Your task to perform on an android device: Go to sound settings Image 0: 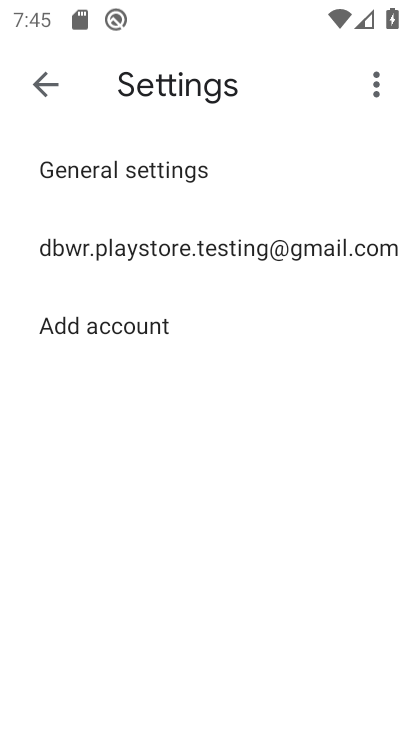
Step 0: press home button
Your task to perform on an android device: Go to sound settings Image 1: 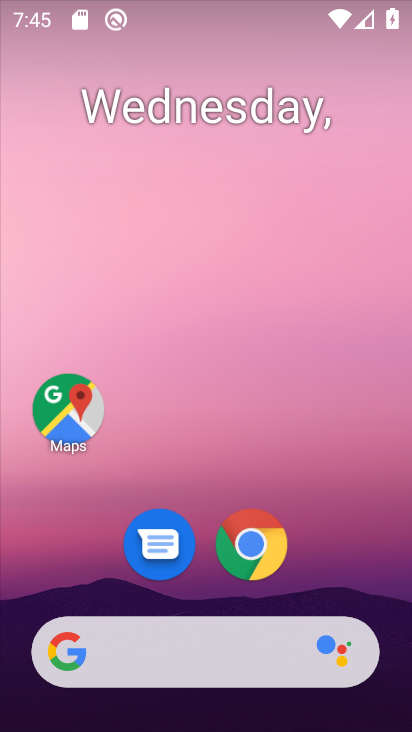
Step 1: drag from (277, 545) to (278, 260)
Your task to perform on an android device: Go to sound settings Image 2: 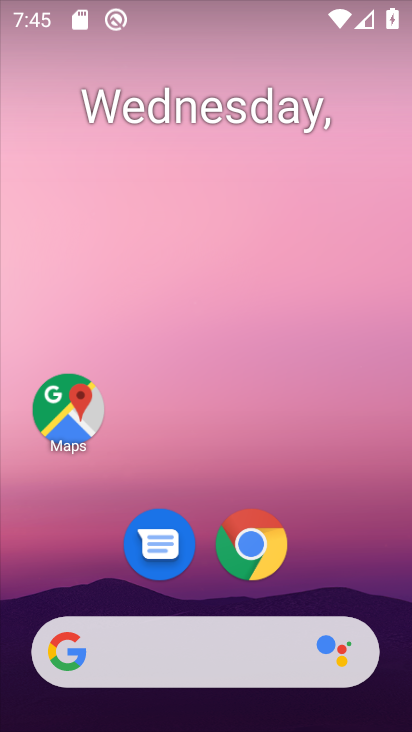
Step 2: drag from (256, 631) to (251, 280)
Your task to perform on an android device: Go to sound settings Image 3: 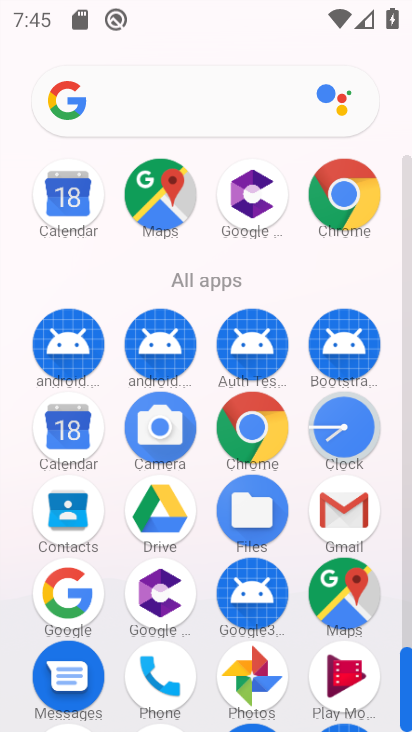
Step 3: drag from (259, 640) to (324, 294)
Your task to perform on an android device: Go to sound settings Image 4: 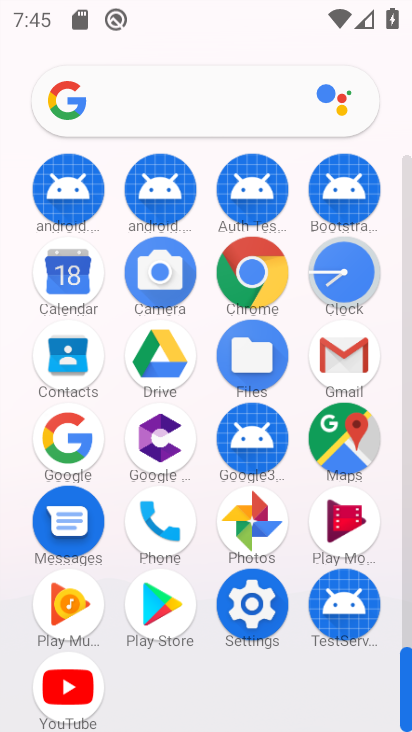
Step 4: click (257, 616)
Your task to perform on an android device: Go to sound settings Image 5: 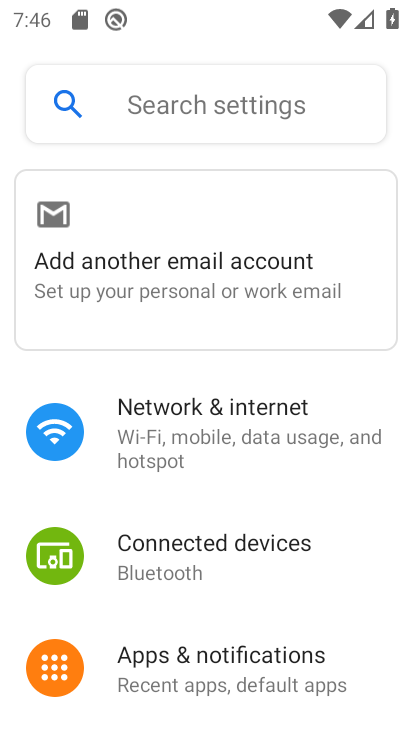
Step 5: drag from (216, 617) to (287, 332)
Your task to perform on an android device: Go to sound settings Image 6: 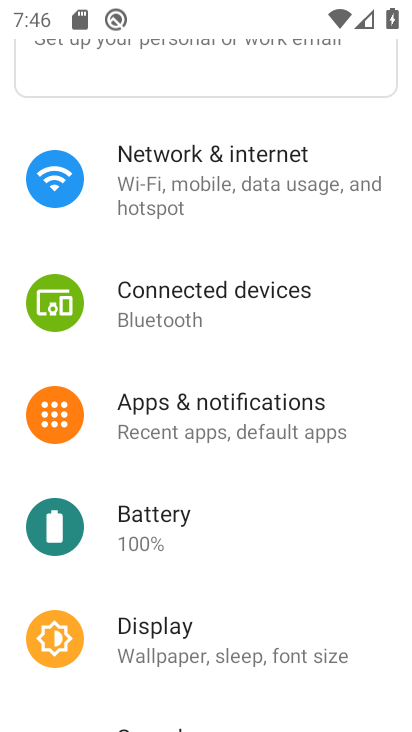
Step 6: drag from (181, 668) to (226, 384)
Your task to perform on an android device: Go to sound settings Image 7: 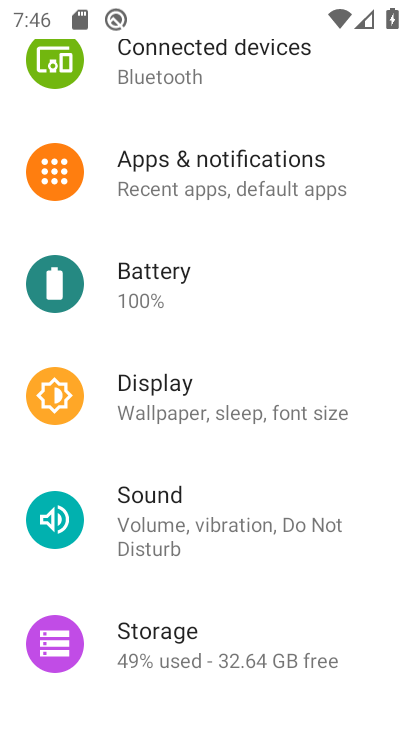
Step 7: click (197, 519)
Your task to perform on an android device: Go to sound settings Image 8: 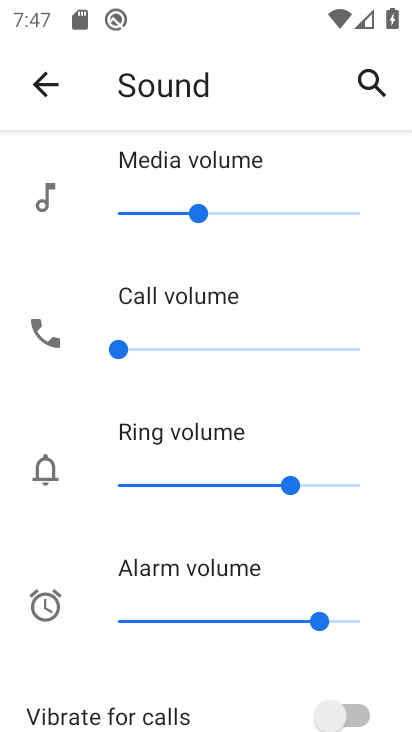
Step 8: task complete